Your task to perform on an android device: Open Yahoo.com Image 0: 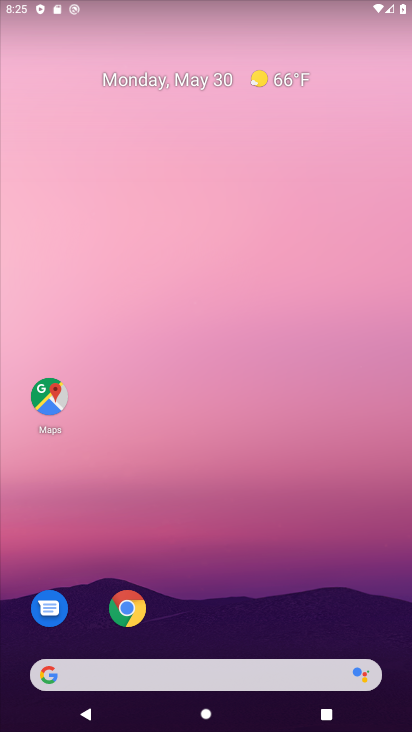
Step 0: click (128, 610)
Your task to perform on an android device: Open Yahoo.com Image 1: 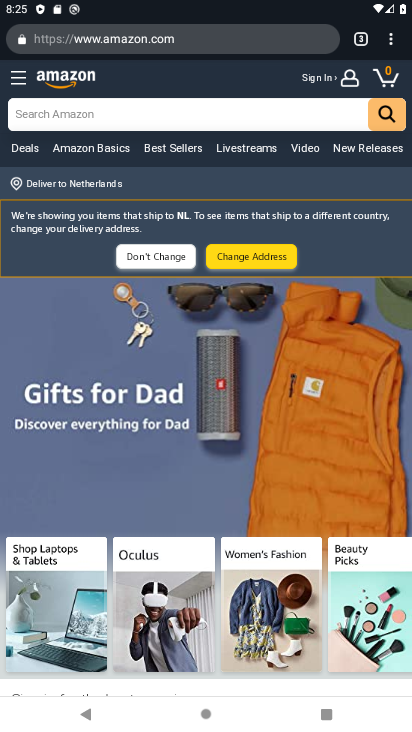
Step 1: click (393, 49)
Your task to perform on an android device: Open Yahoo.com Image 2: 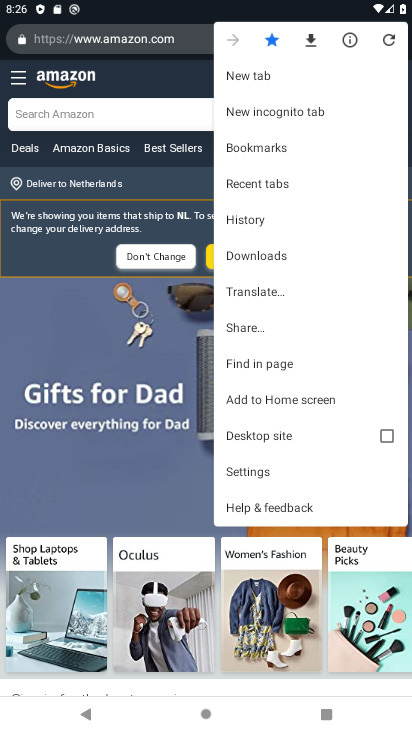
Step 2: click (247, 79)
Your task to perform on an android device: Open Yahoo.com Image 3: 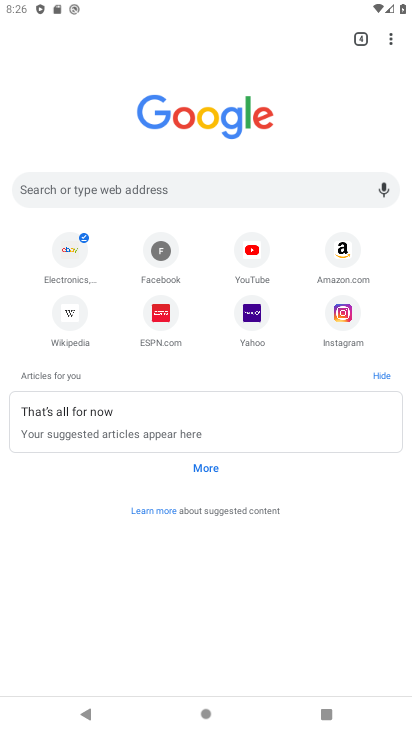
Step 3: click (246, 313)
Your task to perform on an android device: Open Yahoo.com Image 4: 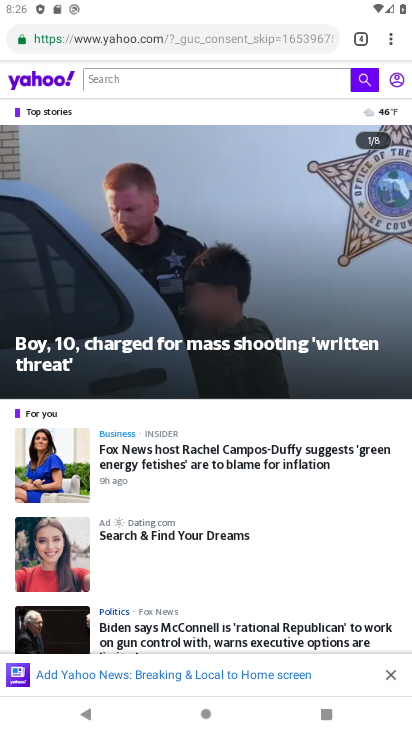
Step 4: task complete